Your task to perform on an android device: see tabs open on other devices in the chrome app Image 0: 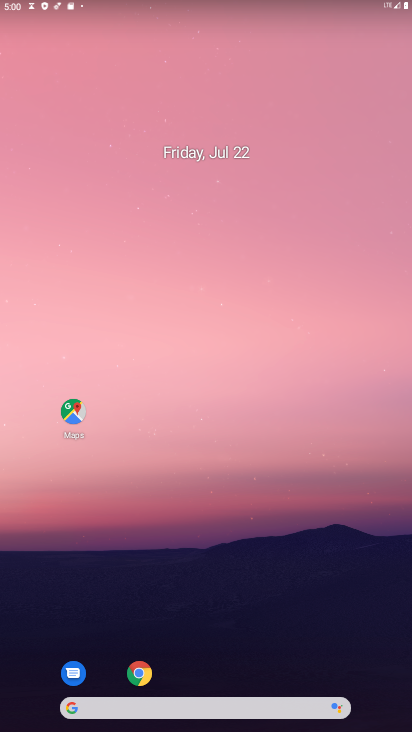
Step 0: press home button
Your task to perform on an android device: see tabs open on other devices in the chrome app Image 1: 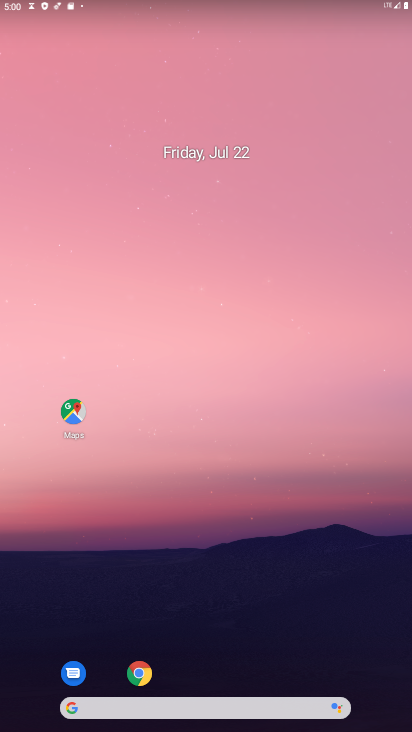
Step 1: drag from (233, 664) to (255, 6)
Your task to perform on an android device: see tabs open on other devices in the chrome app Image 2: 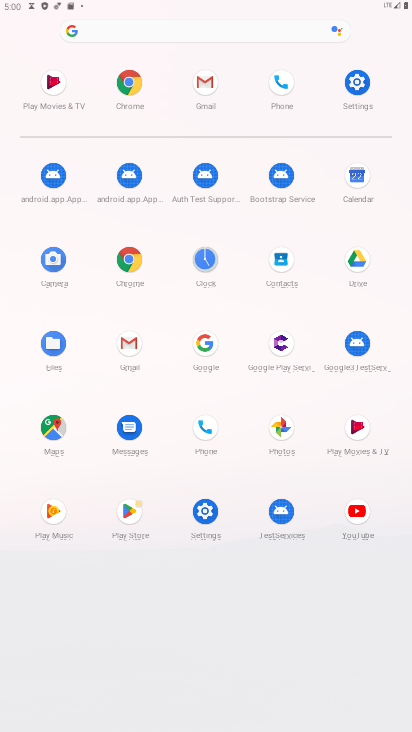
Step 2: click (130, 88)
Your task to perform on an android device: see tabs open on other devices in the chrome app Image 3: 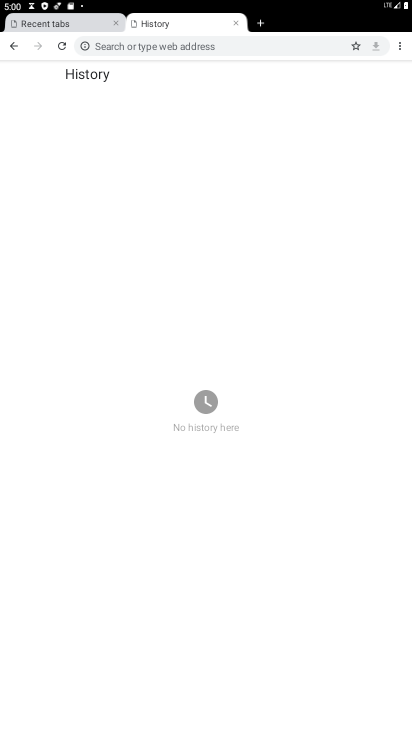
Step 3: task complete